Your task to perform on an android device: Go to privacy settings Image 0: 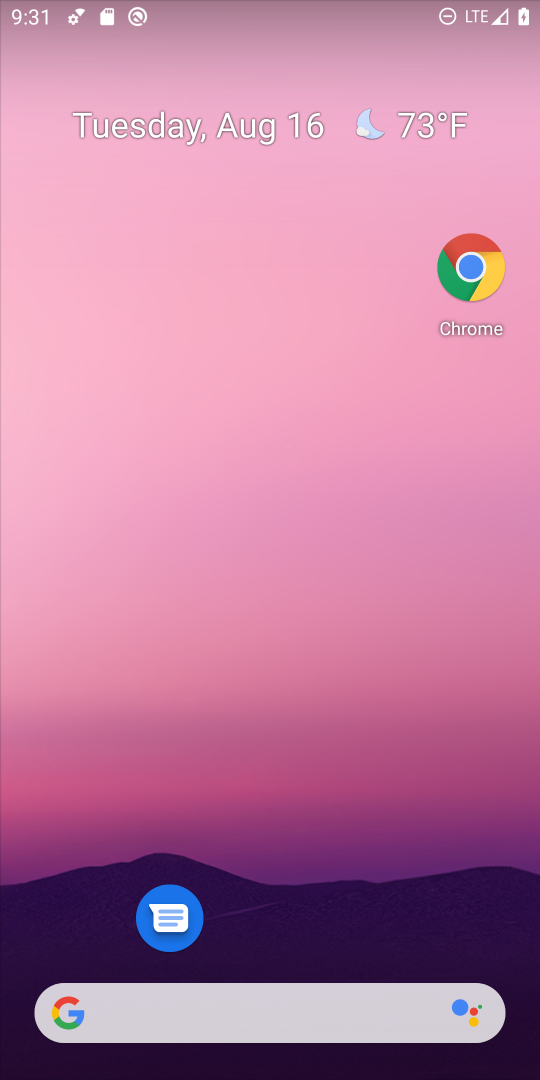
Step 0: drag from (369, 930) to (304, 329)
Your task to perform on an android device: Go to privacy settings Image 1: 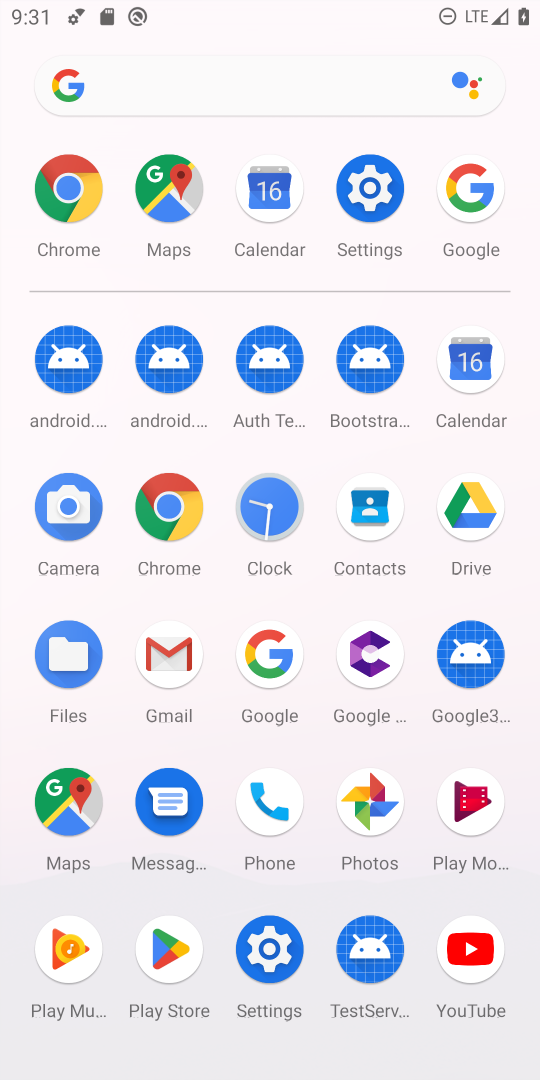
Step 1: click (304, 329)
Your task to perform on an android device: Go to privacy settings Image 2: 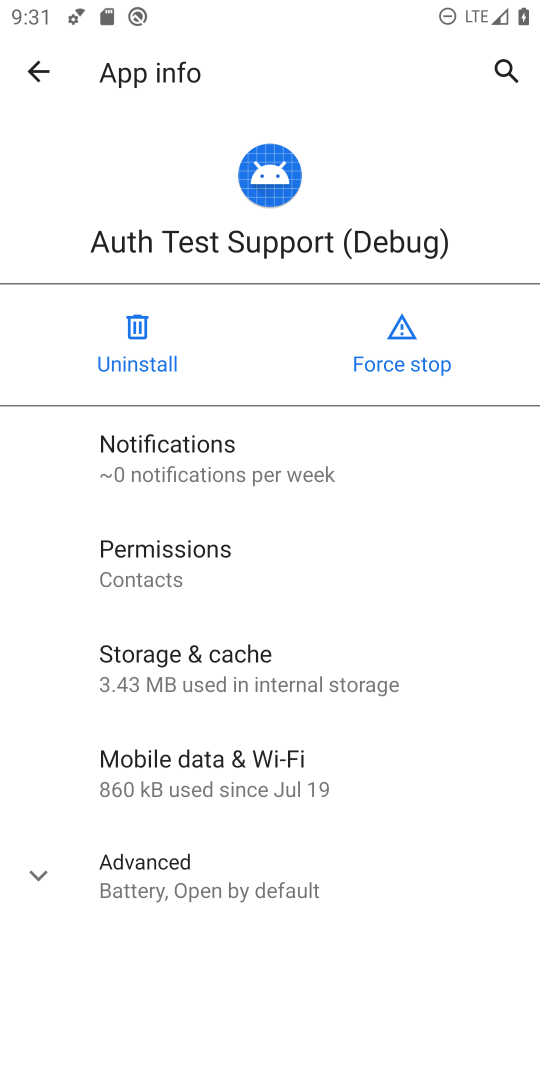
Step 2: click (41, 82)
Your task to perform on an android device: Go to privacy settings Image 3: 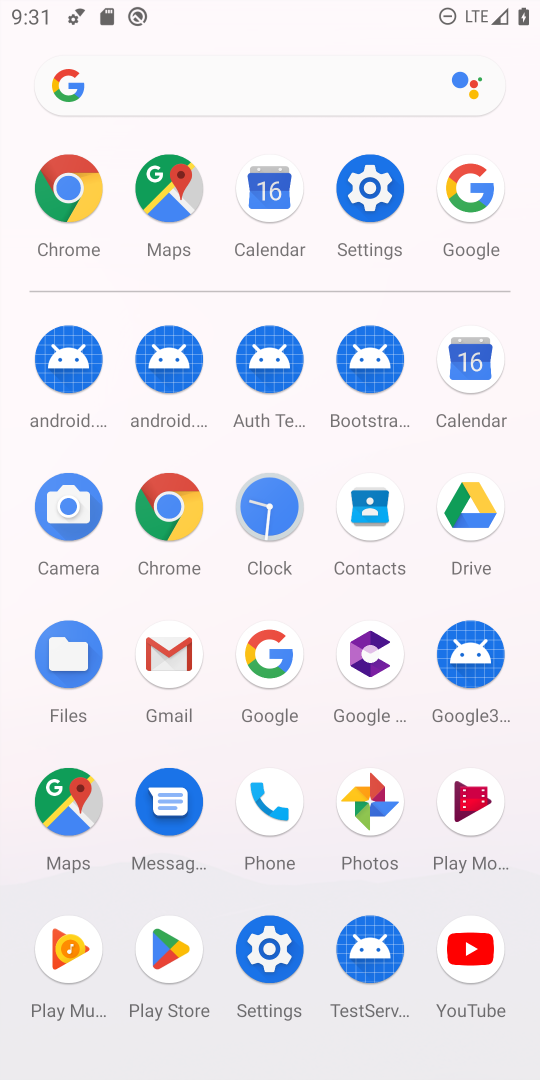
Step 3: click (376, 212)
Your task to perform on an android device: Go to privacy settings Image 4: 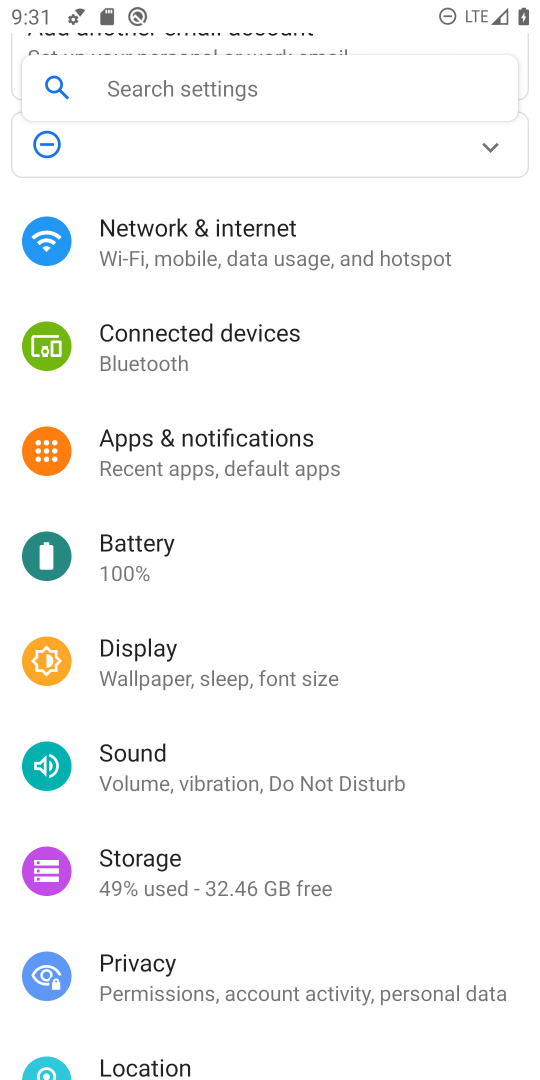
Step 4: click (177, 988)
Your task to perform on an android device: Go to privacy settings Image 5: 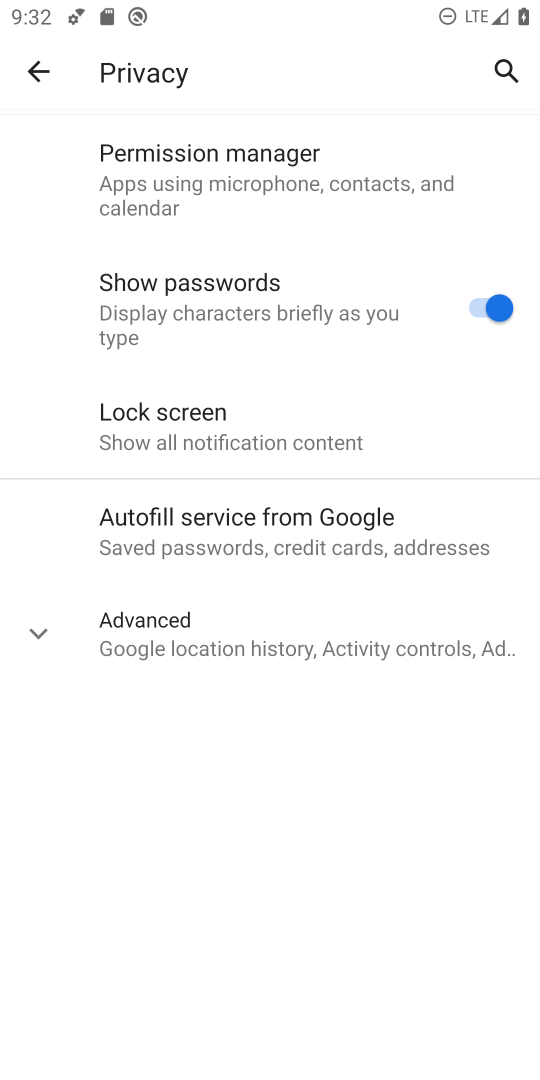
Step 5: task complete